Your task to perform on an android device: What's the weather going to be this weekend? Image 0: 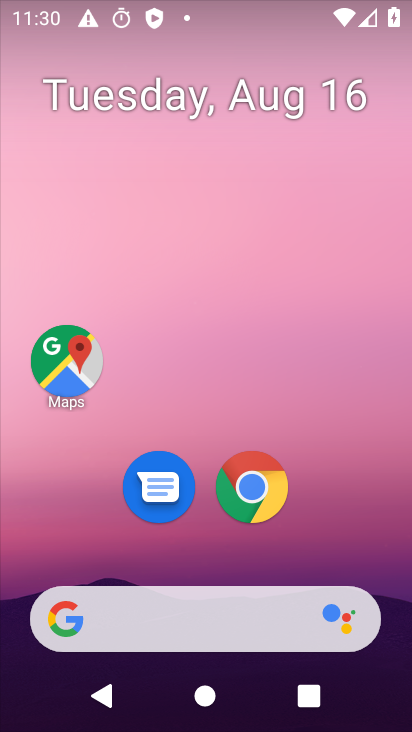
Step 0: click (205, 628)
Your task to perform on an android device: What's the weather going to be this weekend? Image 1: 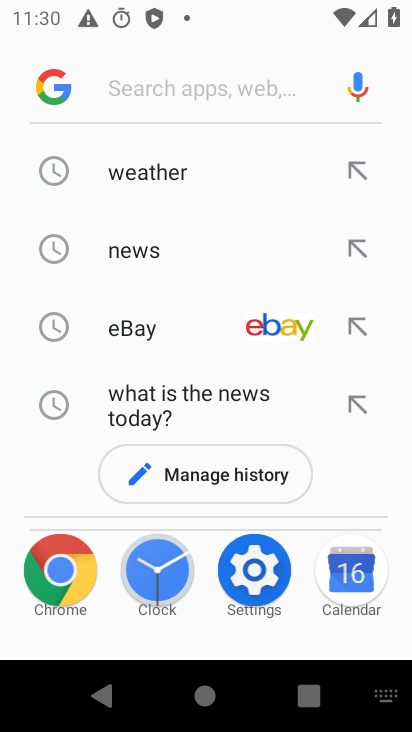
Step 1: click (180, 177)
Your task to perform on an android device: What's the weather going to be this weekend? Image 2: 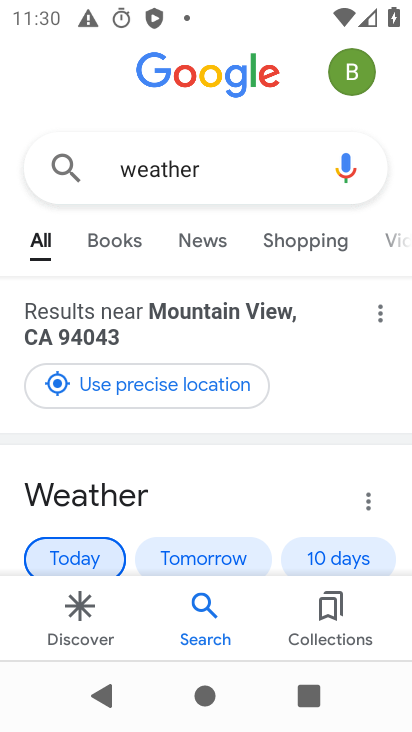
Step 2: click (308, 558)
Your task to perform on an android device: What's the weather going to be this weekend? Image 3: 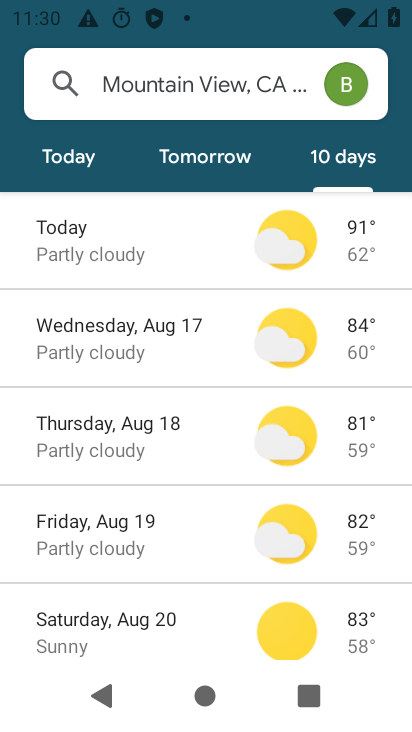
Step 3: click (208, 626)
Your task to perform on an android device: What's the weather going to be this weekend? Image 4: 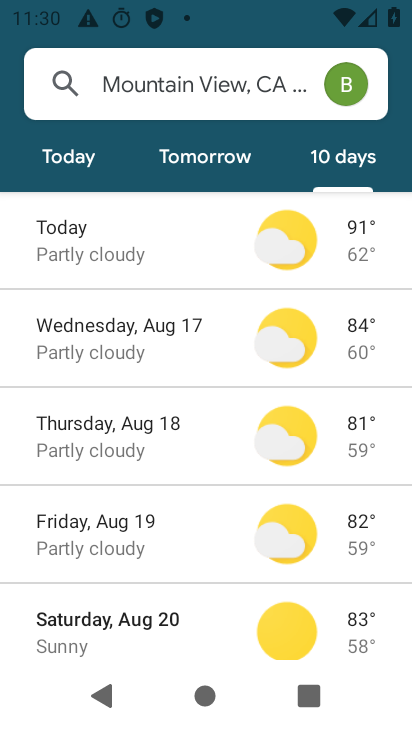
Step 4: click (189, 625)
Your task to perform on an android device: What's the weather going to be this weekend? Image 5: 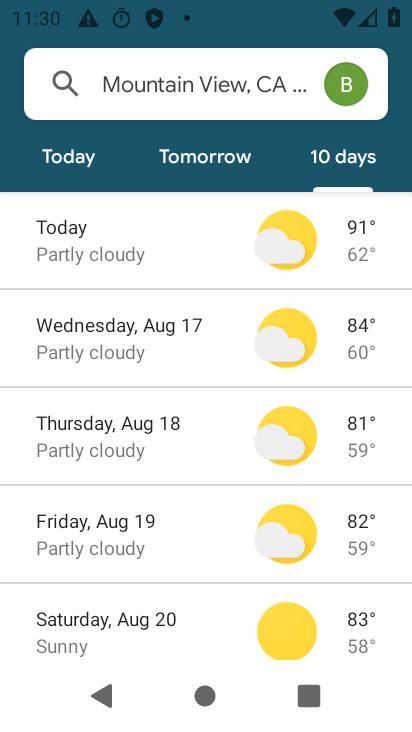
Step 5: drag from (189, 625) to (184, 416)
Your task to perform on an android device: What's the weather going to be this weekend? Image 6: 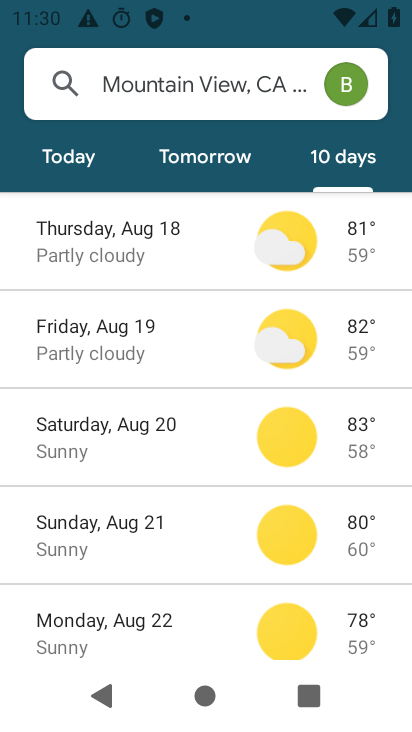
Step 6: click (184, 416)
Your task to perform on an android device: What's the weather going to be this weekend? Image 7: 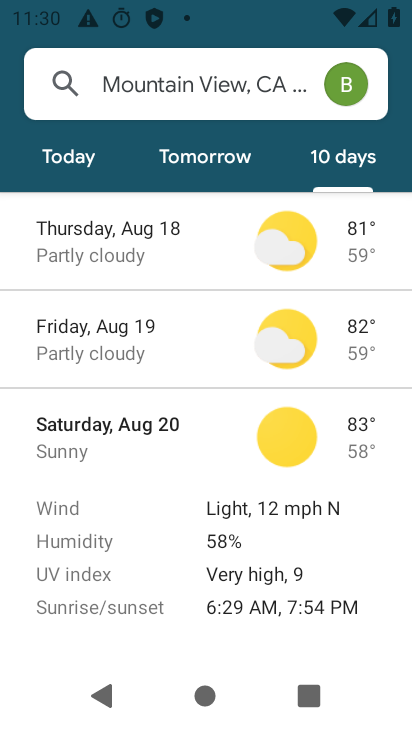
Step 7: task complete